Your task to perform on an android device: Go to settings Image 0: 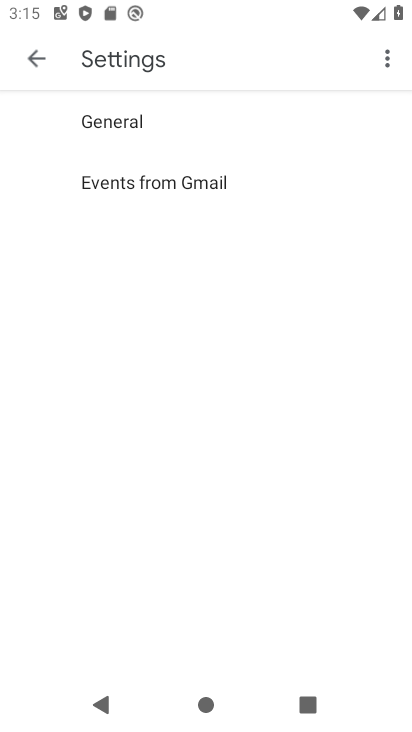
Step 0: press back button
Your task to perform on an android device: Go to settings Image 1: 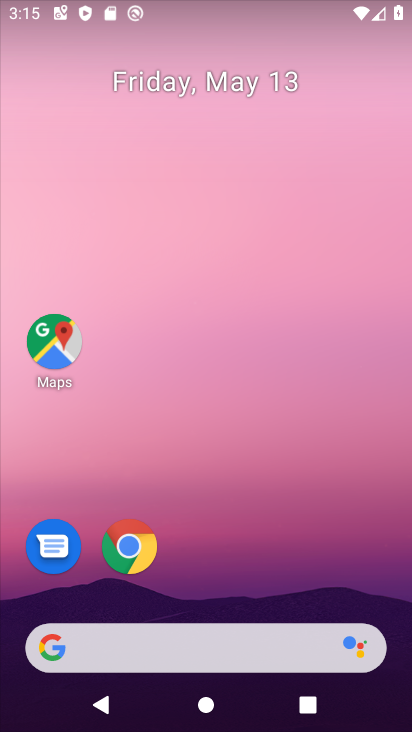
Step 1: drag from (222, 625) to (271, 139)
Your task to perform on an android device: Go to settings Image 2: 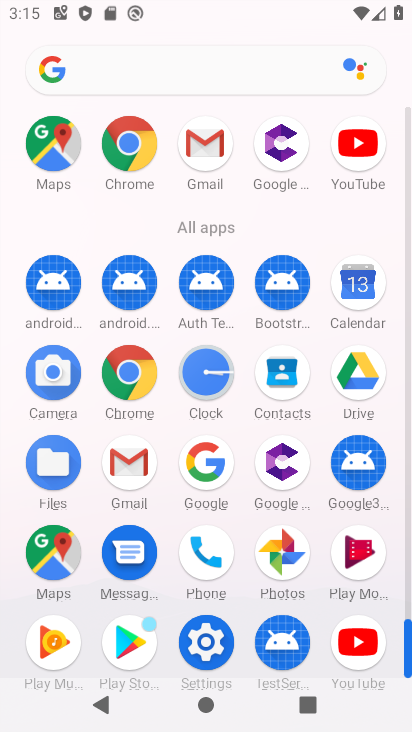
Step 2: drag from (209, 634) to (237, 536)
Your task to perform on an android device: Go to settings Image 3: 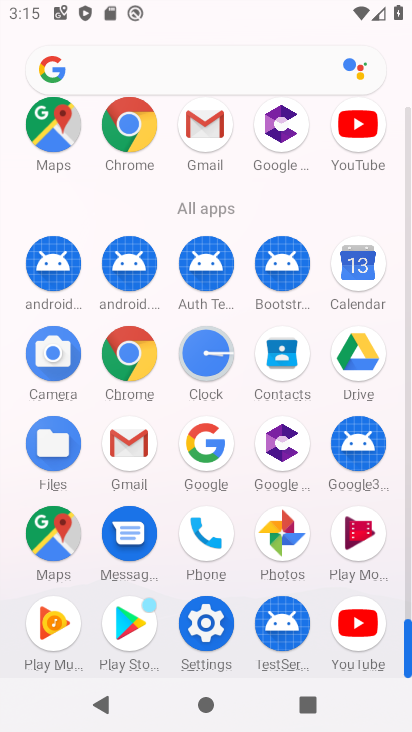
Step 3: click (206, 626)
Your task to perform on an android device: Go to settings Image 4: 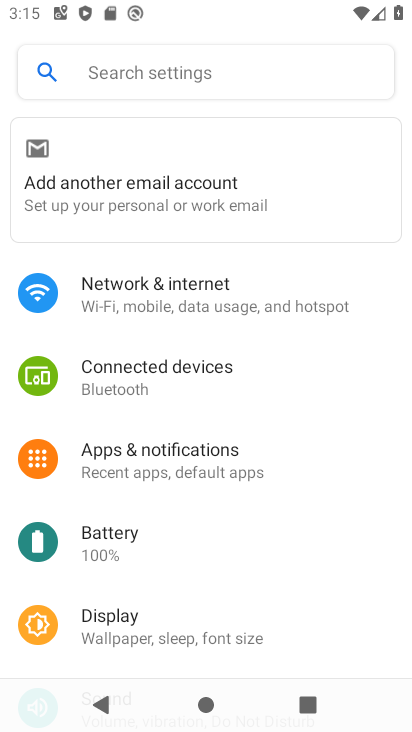
Step 4: task complete